Your task to perform on an android device: Open Google Image 0: 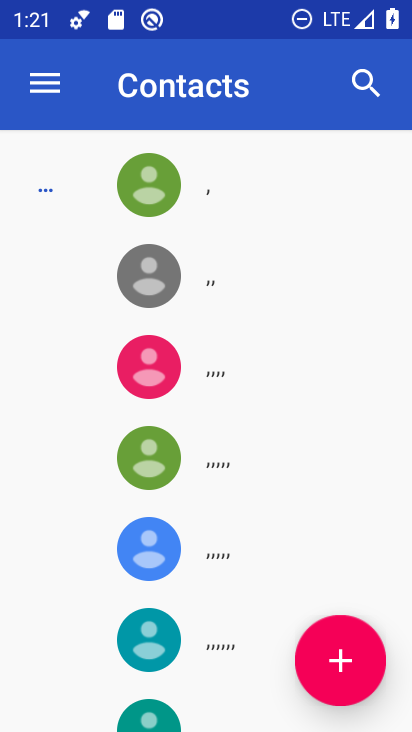
Step 0: press home button
Your task to perform on an android device: Open Google Image 1: 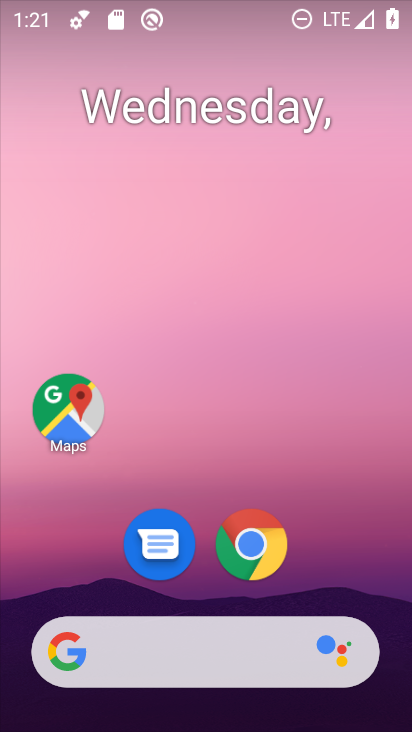
Step 1: drag from (348, 591) to (274, 63)
Your task to perform on an android device: Open Google Image 2: 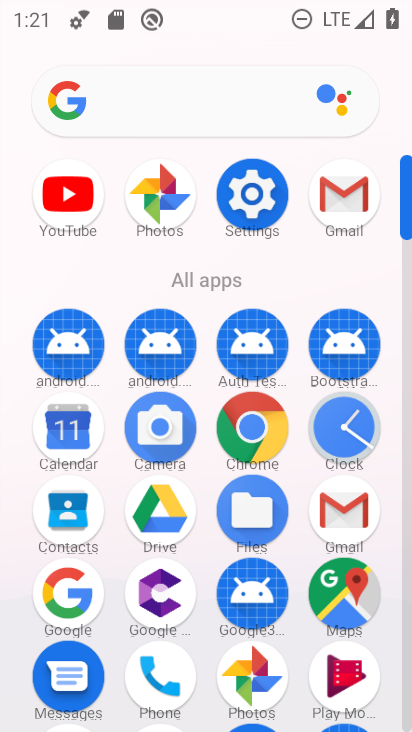
Step 2: click (85, 590)
Your task to perform on an android device: Open Google Image 3: 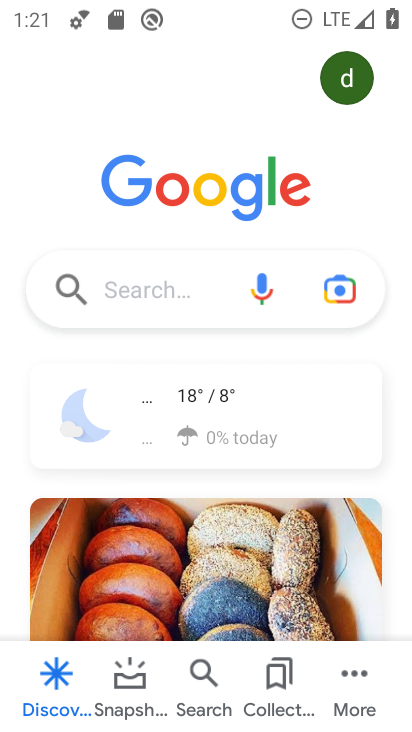
Step 3: task complete